Your task to perform on an android device: Go to Wikipedia Image 0: 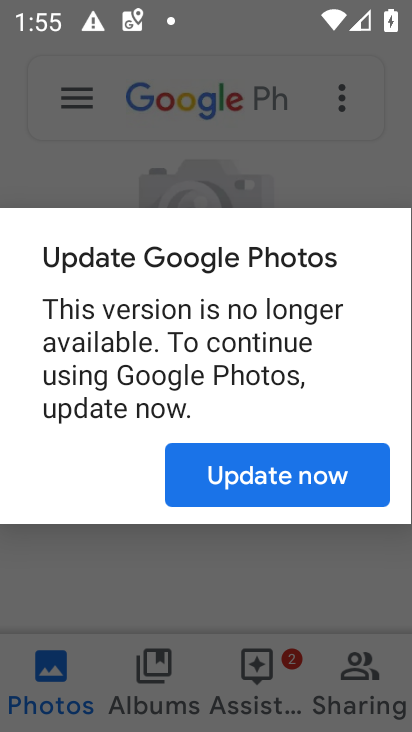
Step 0: press home button
Your task to perform on an android device: Go to Wikipedia Image 1: 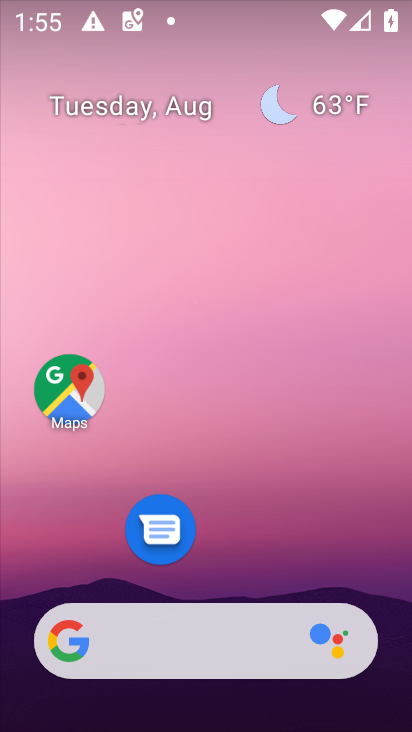
Step 1: drag from (269, 565) to (284, 138)
Your task to perform on an android device: Go to Wikipedia Image 2: 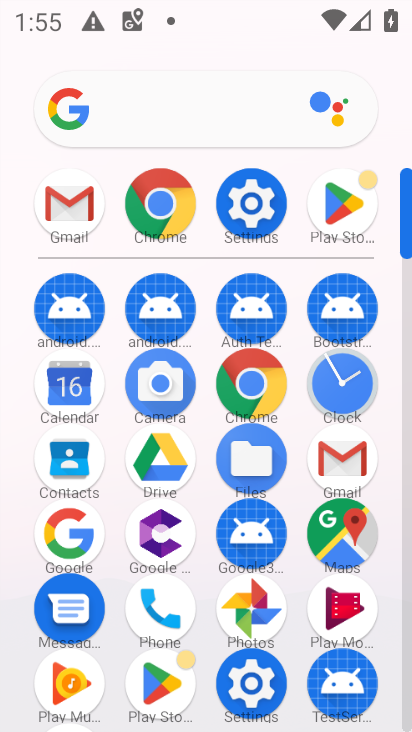
Step 2: click (137, 211)
Your task to perform on an android device: Go to Wikipedia Image 3: 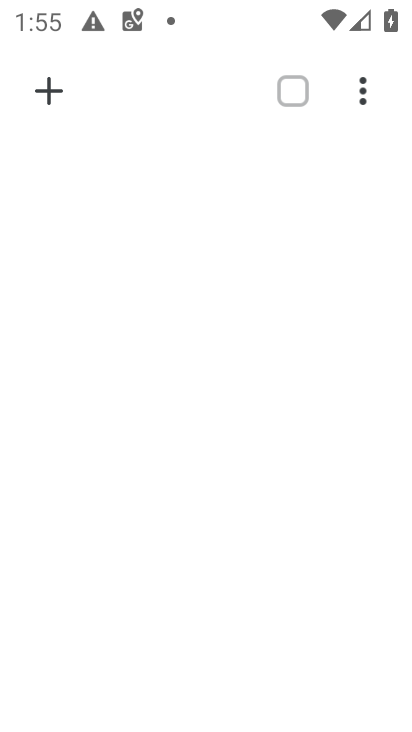
Step 3: click (51, 104)
Your task to perform on an android device: Go to Wikipedia Image 4: 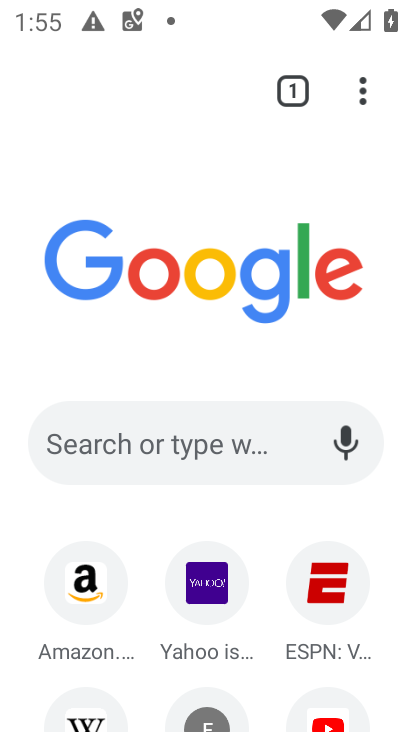
Step 4: click (85, 715)
Your task to perform on an android device: Go to Wikipedia Image 5: 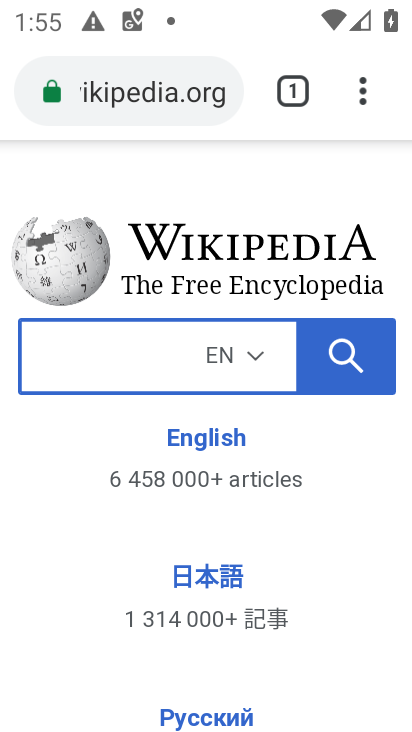
Step 5: task complete